Your task to perform on an android device: Search for Italian restaurants on Maps Image 0: 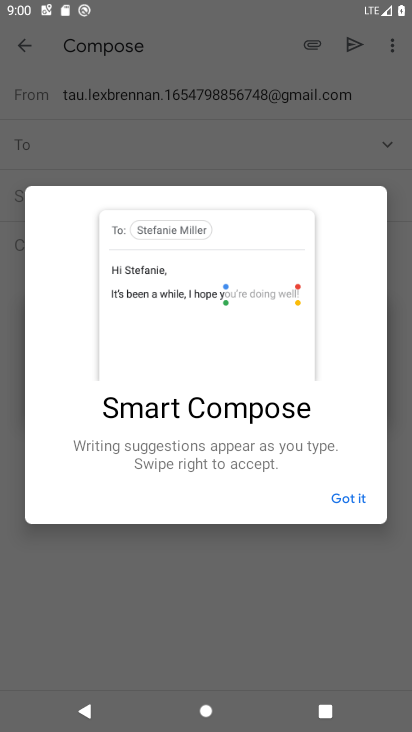
Step 0: press home button
Your task to perform on an android device: Search for Italian restaurants on Maps Image 1: 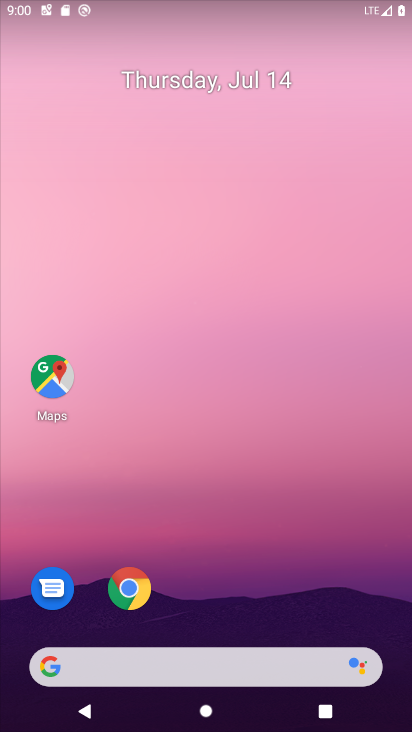
Step 1: drag from (244, 578) to (268, 100)
Your task to perform on an android device: Search for Italian restaurants on Maps Image 2: 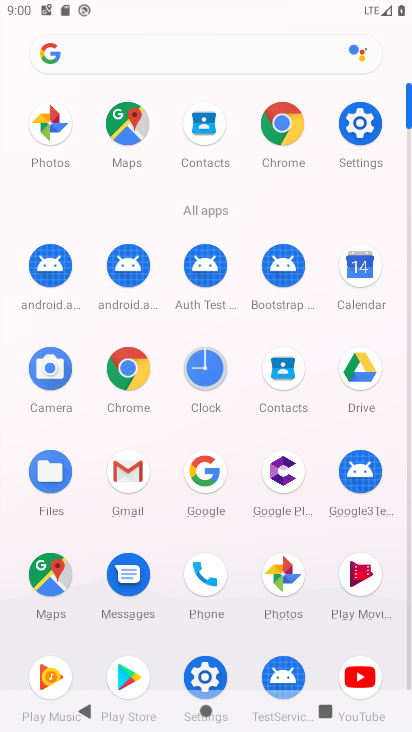
Step 2: click (54, 566)
Your task to perform on an android device: Search for Italian restaurants on Maps Image 3: 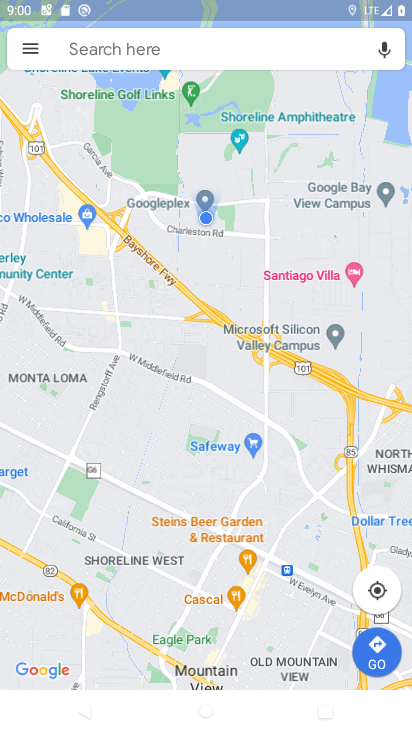
Step 3: click (173, 50)
Your task to perform on an android device: Search for Italian restaurants on Maps Image 4: 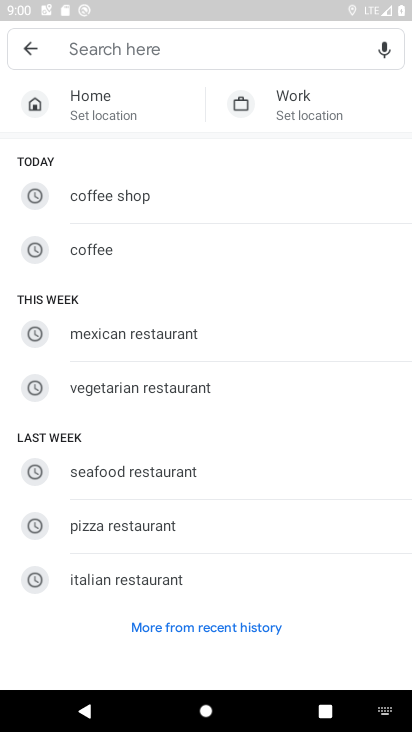
Step 4: type "Italian restaurants"
Your task to perform on an android device: Search for Italian restaurants on Maps Image 5: 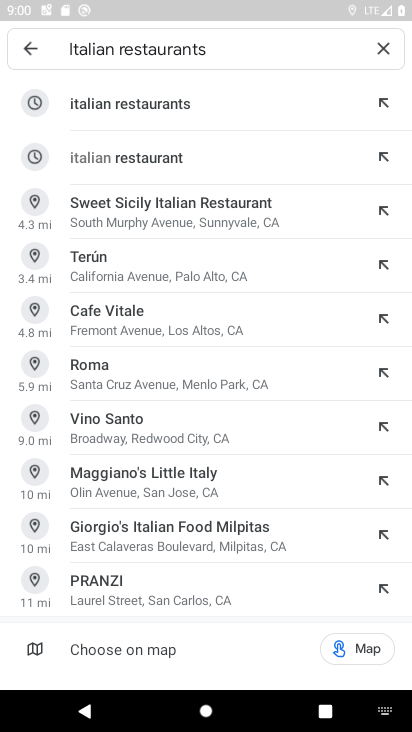
Step 5: click (125, 101)
Your task to perform on an android device: Search for Italian restaurants on Maps Image 6: 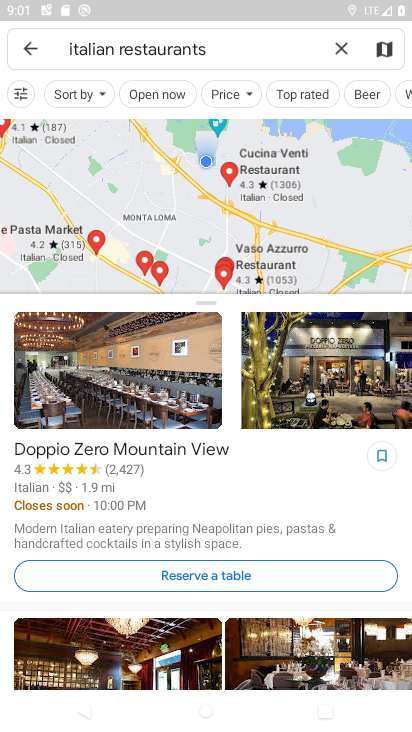
Step 6: task complete